Your task to perform on an android device: Is it going to rain tomorrow? Image 0: 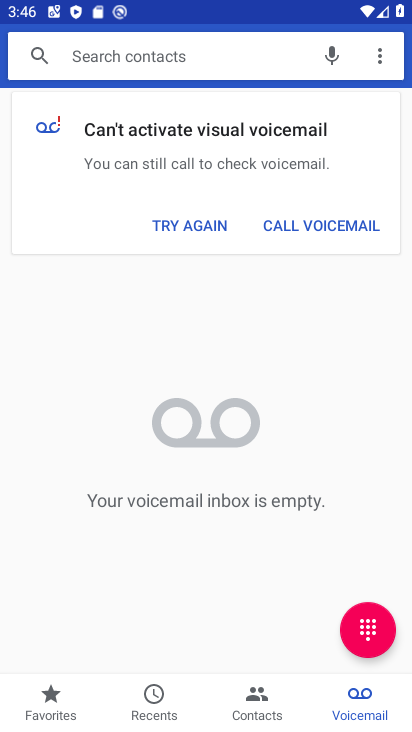
Step 0: press home button
Your task to perform on an android device: Is it going to rain tomorrow? Image 1: 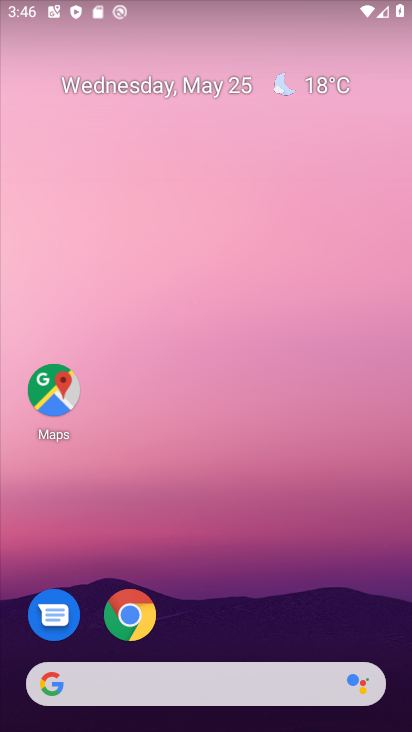
Step 1: click (325, 95)
Your task to perform on an android device: Is it going to rain tomorrow? Image 2: 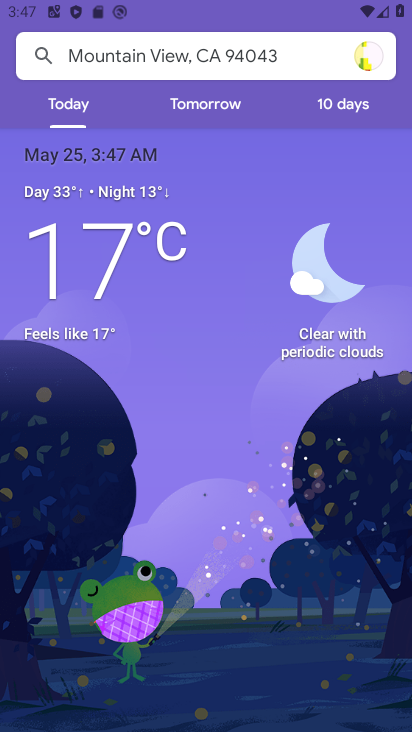
Step 2: click (234, 100)
Your task to perform on an android device: Is it going to rain tomorrow? Image 3: 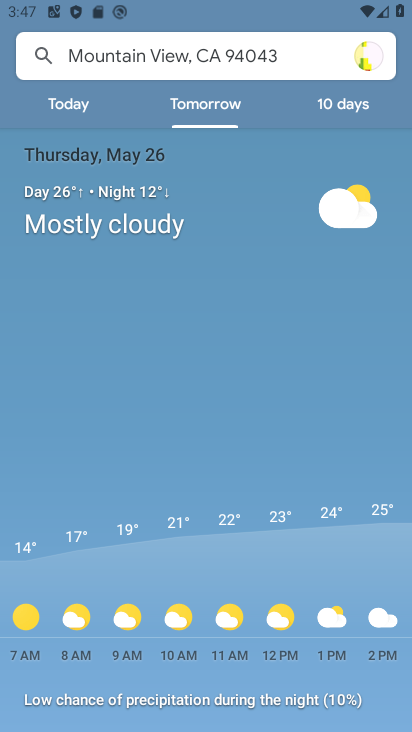
Step 3: task complete